Your task to perform on an android device: empty trash in google photos Image 0: 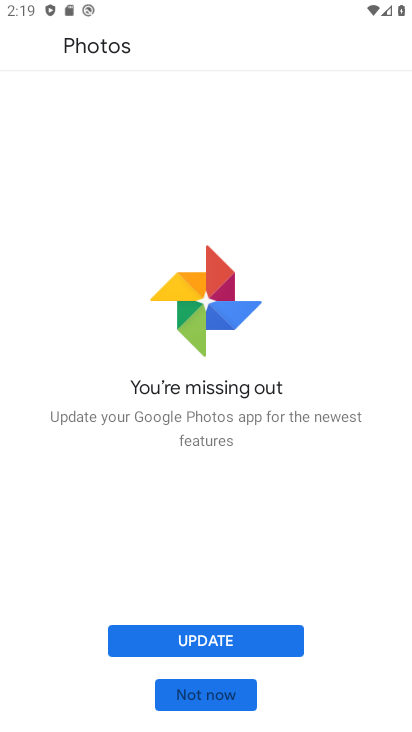
Step 0: click (234, 704)
Your task to perform on an android device: empty trash in google photos Image 1: 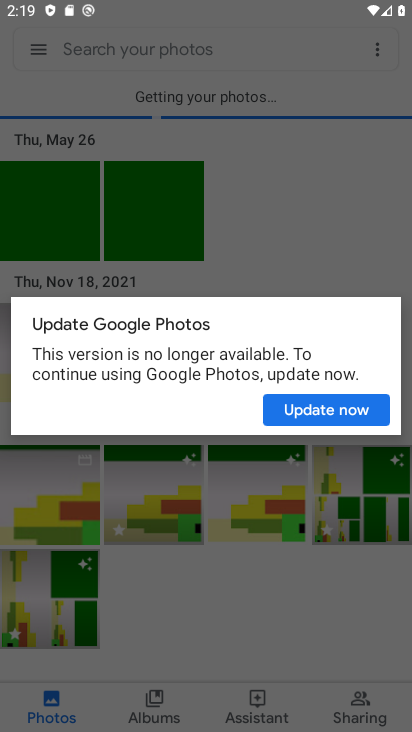
Step 1: click (318, 404)
Your task to perform on an android device: empty trash in google photos Image 2: 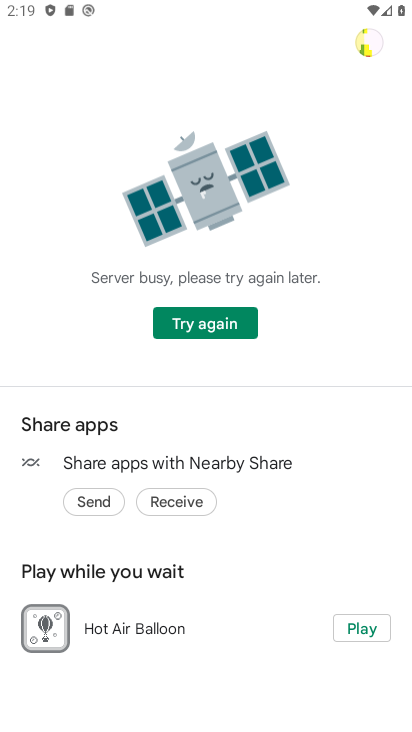
Step 2: task complete